Your task to perform on an android device: Turn on the flashlight Image 0: 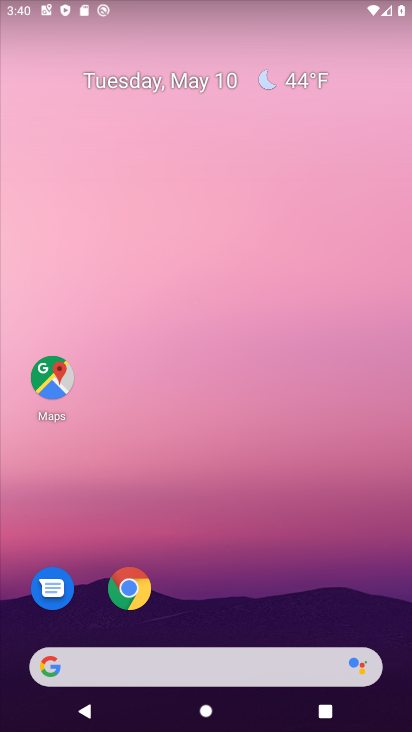
Step 0: drag from (308, 11) to (285, 517)
Your task to perform on an android device: Turn on the flashlight Image 1: 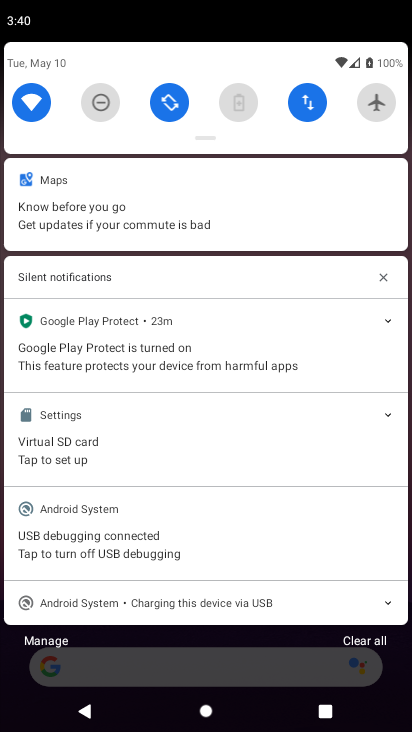
Step 1: drag from (266, 144) to (273, 585)
Your task to perform on an android device: Turn on the flashlight Image 2: 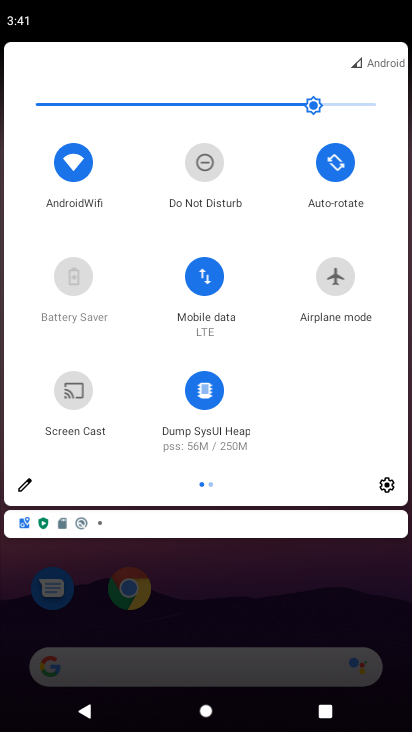
Step 2: click (387, 482)
Your task to perform on an android device: Turn on the flashlight Image 3: 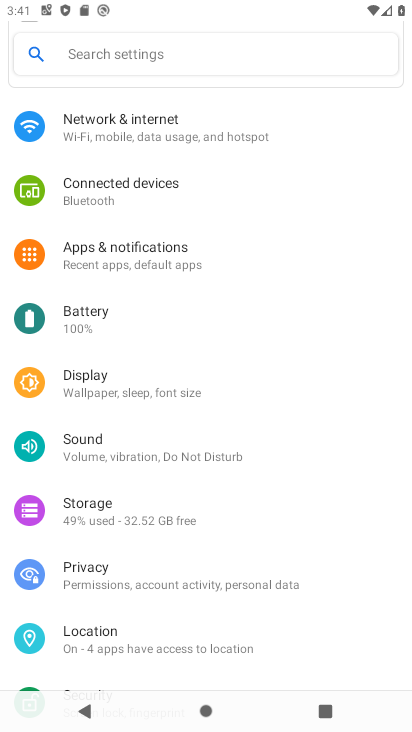
Step 3: drag from (235, 6) to (204, 544)
Your task to perform on an android device: Turn on the flashlight Image 4: 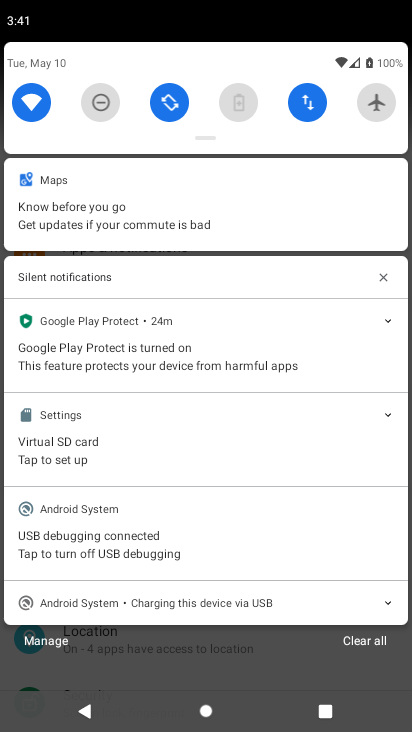
Step 4: drag from (215, 135) to (197, 588)
Your task to perform on an android device: Turn on the flashlight Image 5: 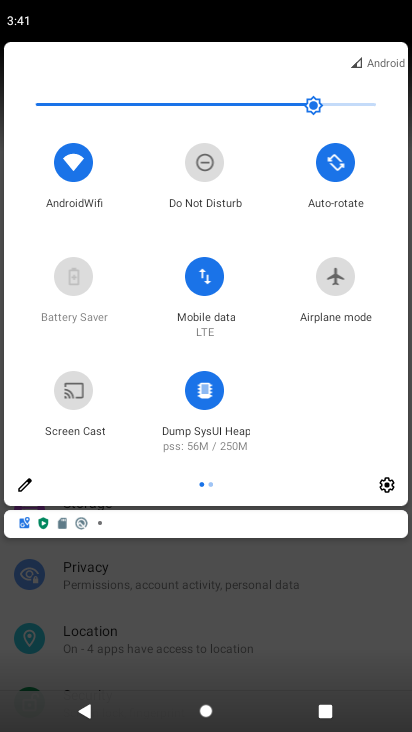
Step 5: click (22, 486)
Your task to perform on an android device: Turn on the flashlight Image 6: 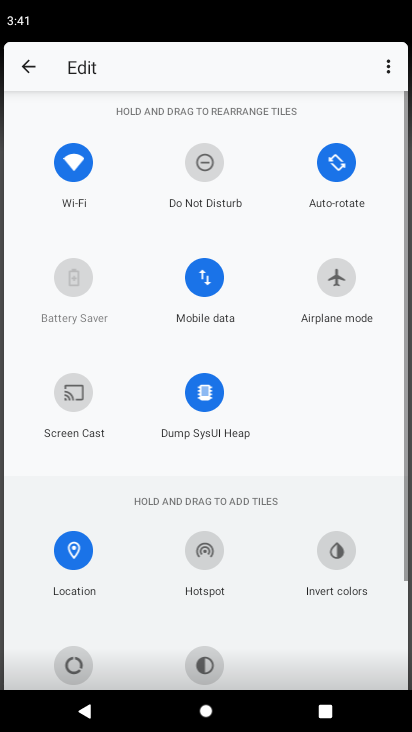
Step 6: task complete